Your task to perform on an android device: Go to Google Image 0: 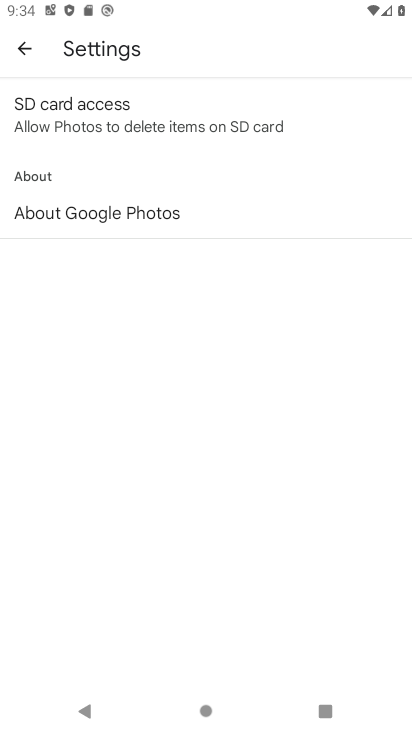
Step 0: press home button
Your task to perform on an android device: Go to Google Image 1: 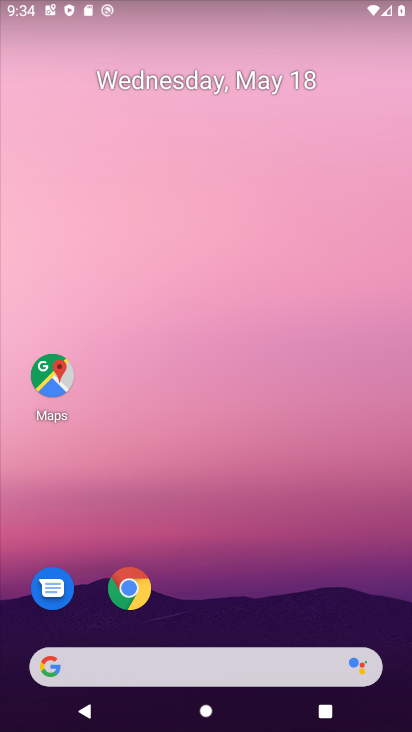
Step 1: drag from (258, 695) to (206, 136)
Your task to perform on an android device: Go to Google Image 2: 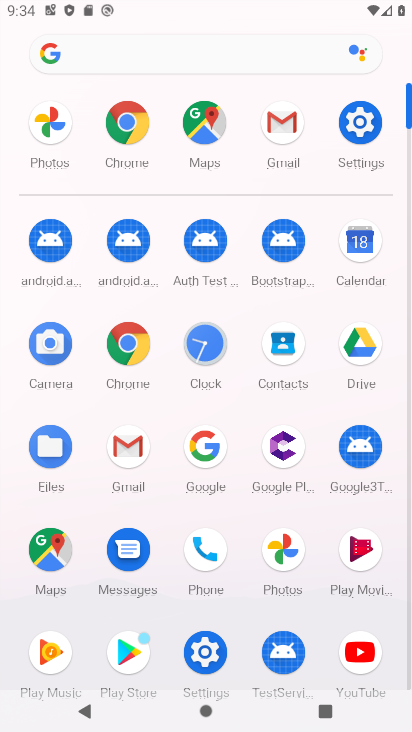
Step 2: click (48, 57)
Your task to perform on an android device: Go to Google Image 3: 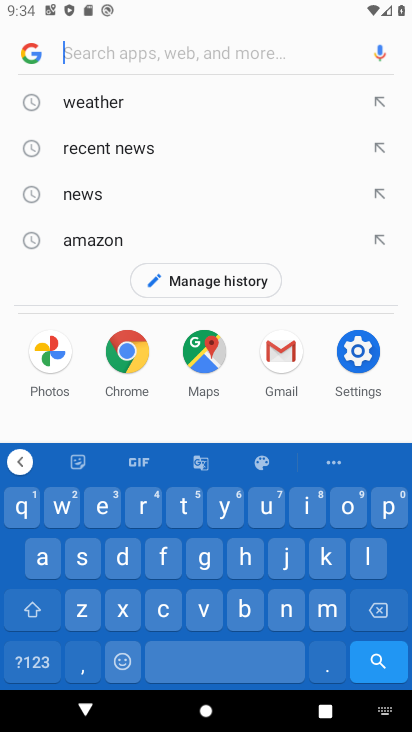
Step 3: click (30, 46)
Your task to perform on an android device: Go to Google Image 4: 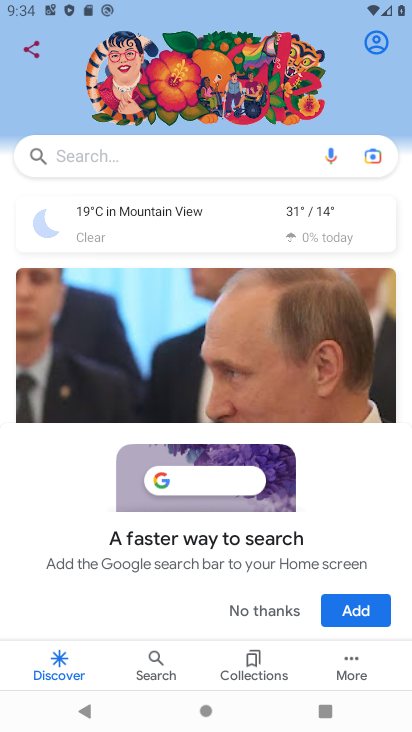
Step 4: task complete